Your task to perform on an android device: Go to sound settings Image 0: 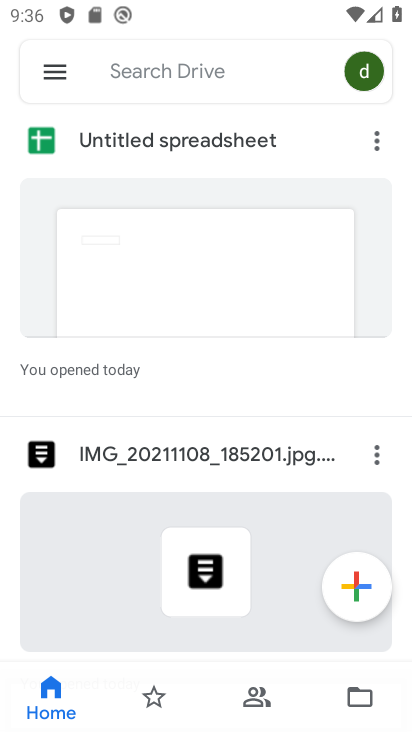
Step 0: press back button
Your task to perform on an android device: Go to sound settings Image 1: 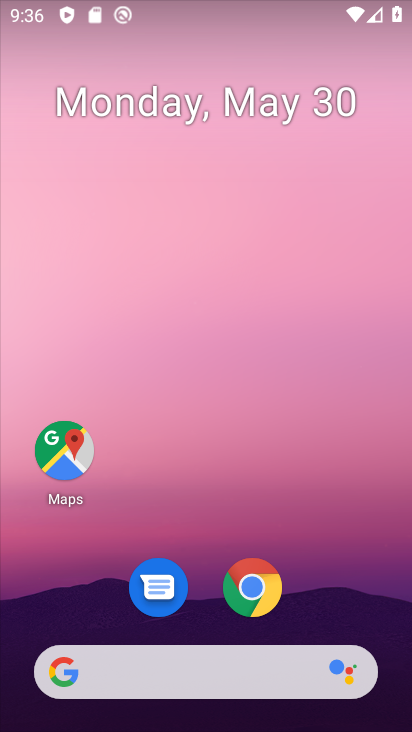
Step 1: drag from (334, 578) to (254, 8)
Your task to perform on an android device: Go to sound settings Image 2: 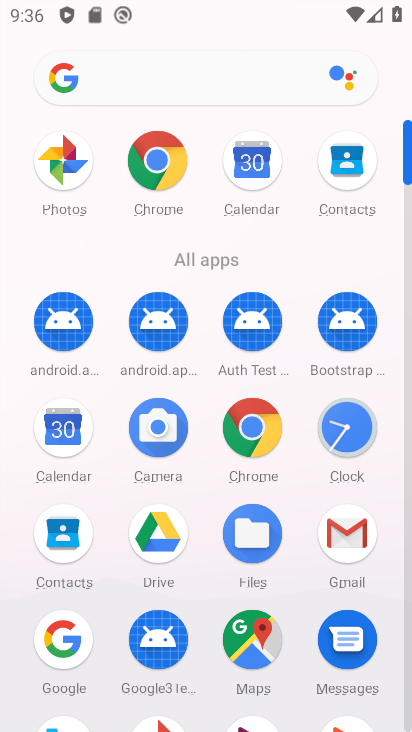
Step 2: drag from (20, 599) to (32, 264)
Your task to perform on an android device: Go to sound settings Image 3: 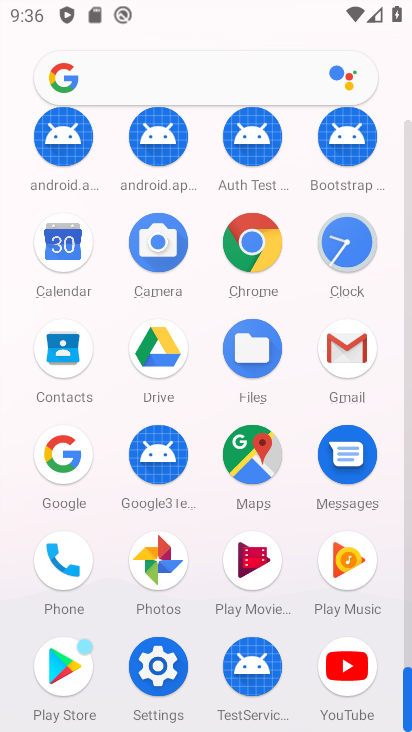
Step 3: click (156, 664)
Your task to perform on an android device: Go to sound settings Image 4: 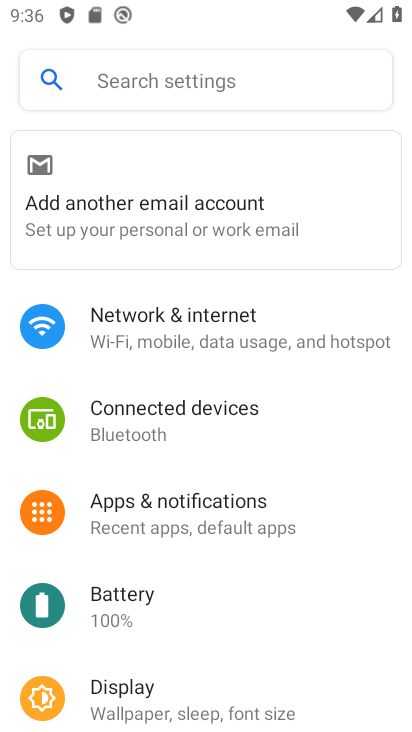
Step 4: drag from (299, 608) to (295, 211)
Your task to perform on an android device: Go to sound settings Image 5: 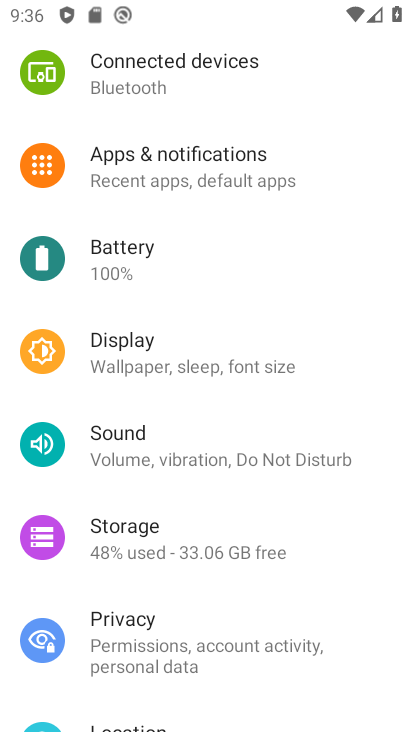
Step 5: click (177, 441)
Your task to perform on an android device: Go to sound settings Image 6: 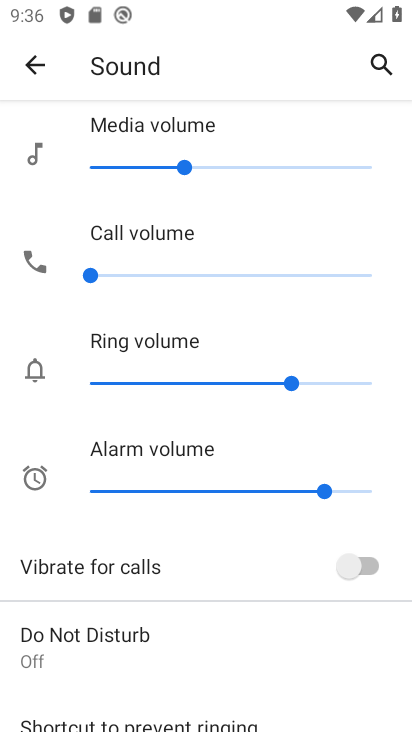
Step 6: drag from (205, 595) to (209, 175)
Your task to perform on an android device: Go to sound settings Image 7: 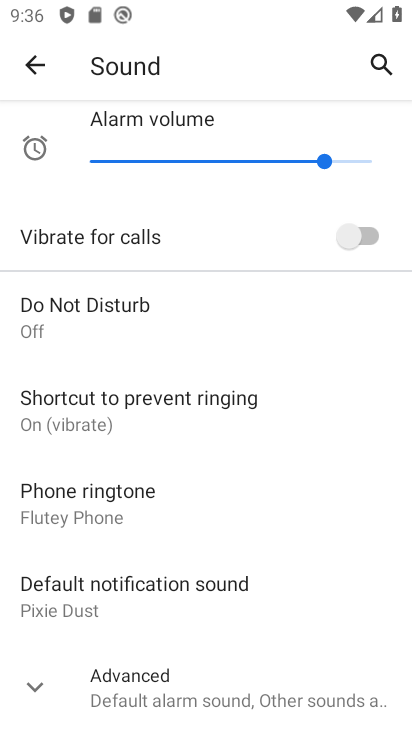
Step 7: click (54, 683)
Your task to perform on an android device: Go to sound settings Image 8: 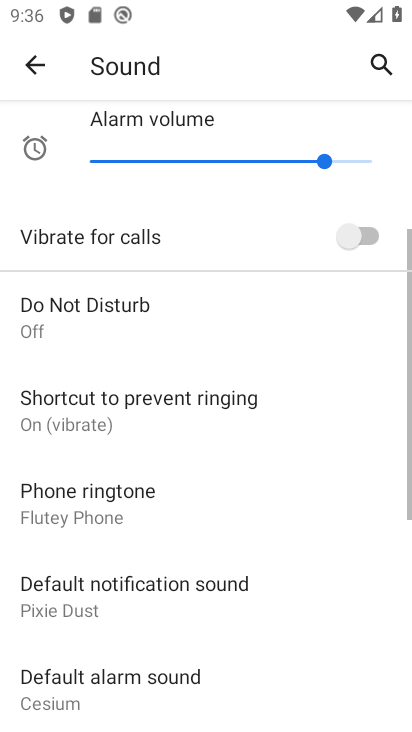
Step 8: task complete